Your task to perform on an android device: check data usage Image 0: 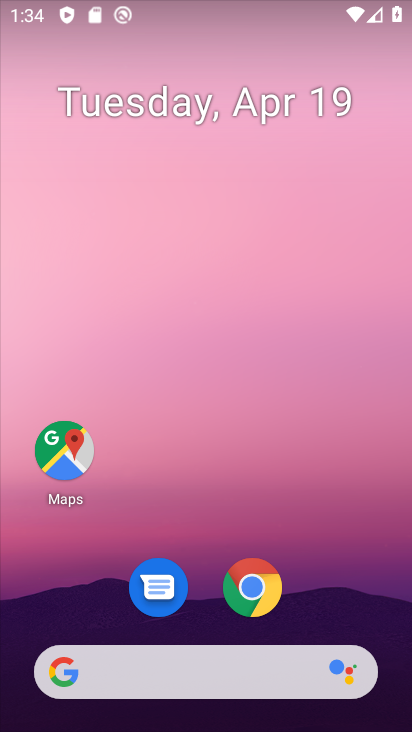
Step 0: drag from (268, 720) to (214, 219)
Your task to perform on an android device: check data usage Image 1: 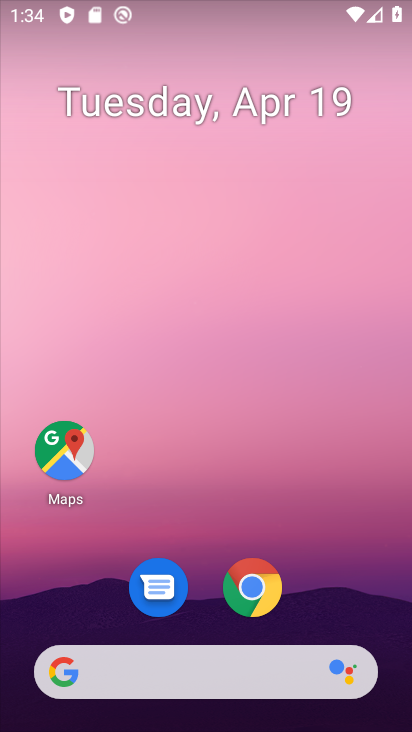
Step 1: drag from (284, 532) to (258, 139)
Your task to perform on an android device: check data usage Image 2: 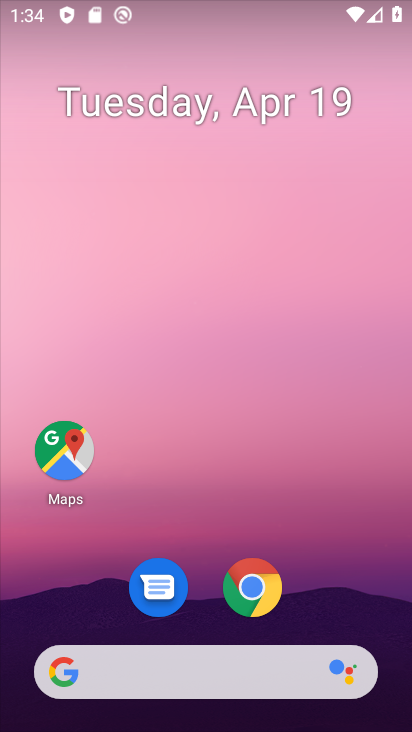
Step 2: drag from (125, 459) to (154, 297)
Your task to perform on an android device: check data usage Image 3: 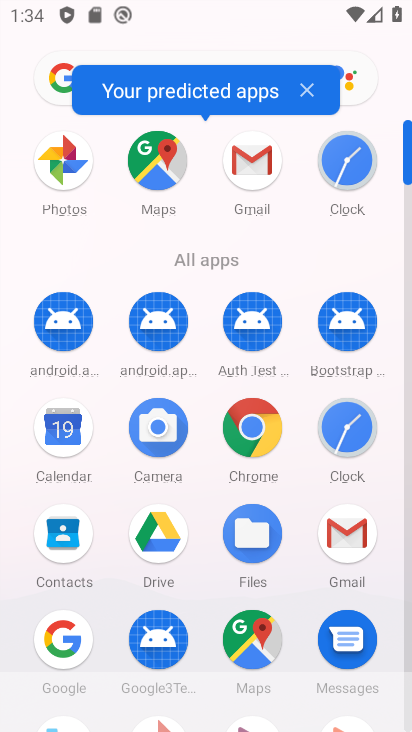
Step 3: click (401, 519)
Your task to perform on an android device: check data usage Image 4: 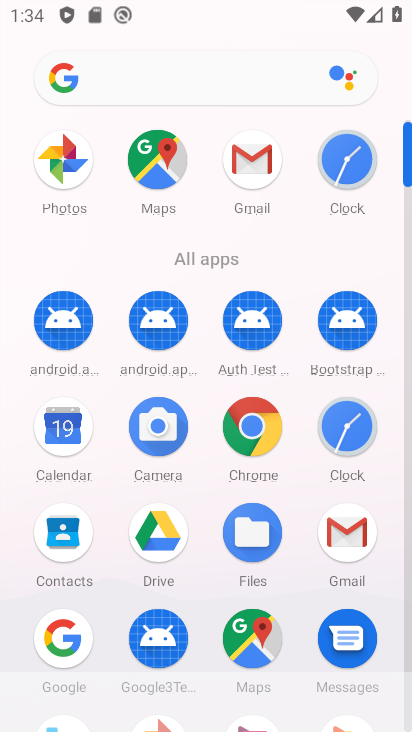
Step 4: click (283, 71)
Your task to perform on an android device: check data usage Image 5: 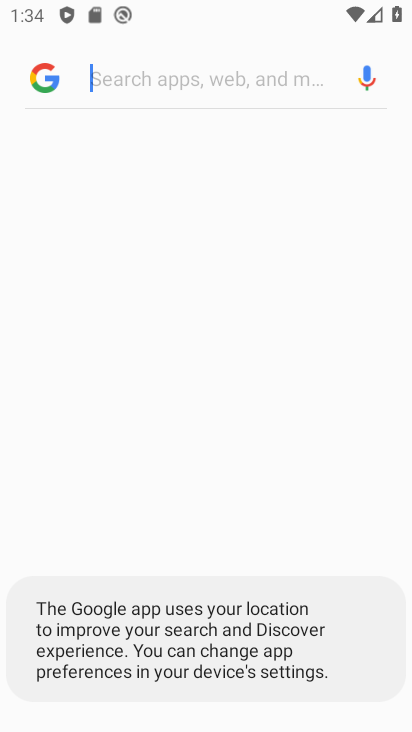
Step 5: drag from (331, 438) to (191, 46)
Your task to perform on an android device: check data usage Image 6: 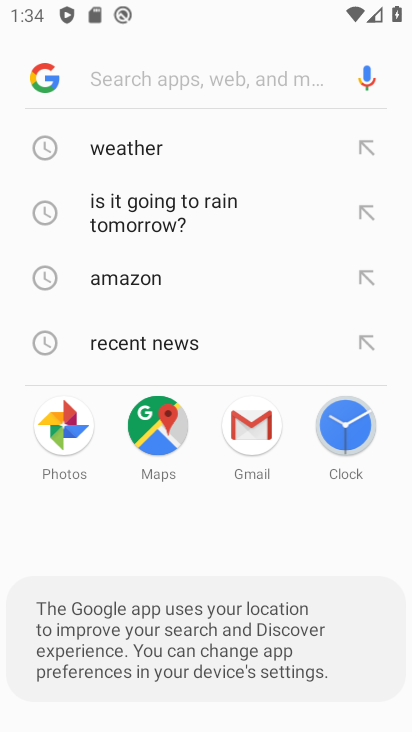
Step 6: press home button
Your task to perform on an android device: check data usage Image 7: 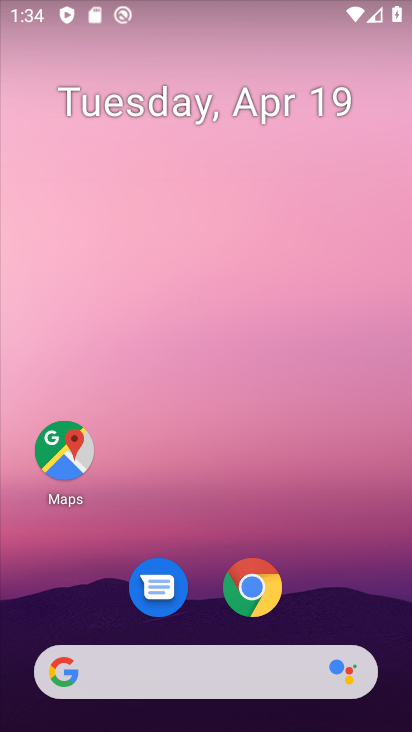
Step 7: drag from (287, 711) to (34, 201)
Your task to perform on an android device: check data usage Image 8: 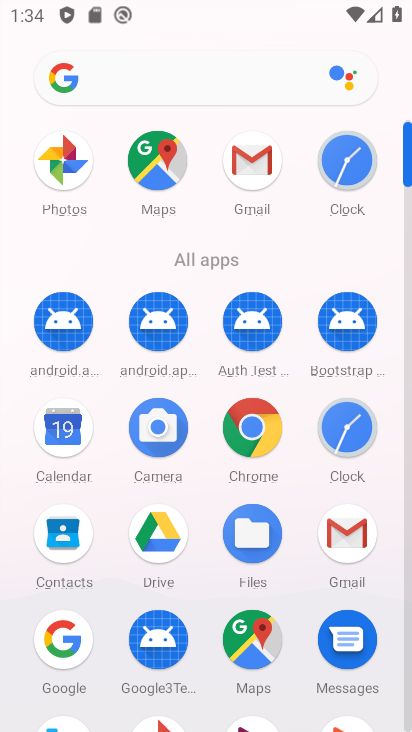
Step 8: drag from (375, 585) to (371, 343)
Your task to perform on an android device: check data usage Image 9: 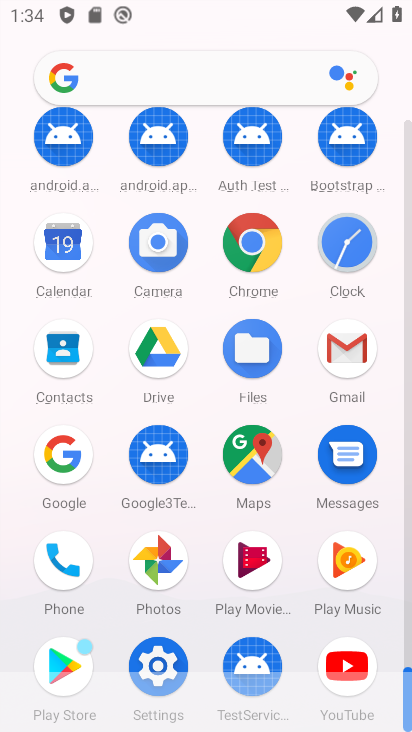
Step 9: click (147, 654)
Your task to perform on an android device: check data usage Image 10: 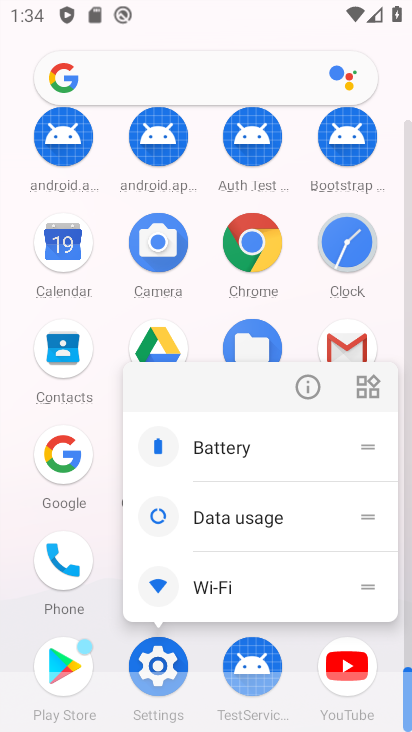
Step 10: click (147, 654)
Your task to perform on an android device: check data usage Image 11: 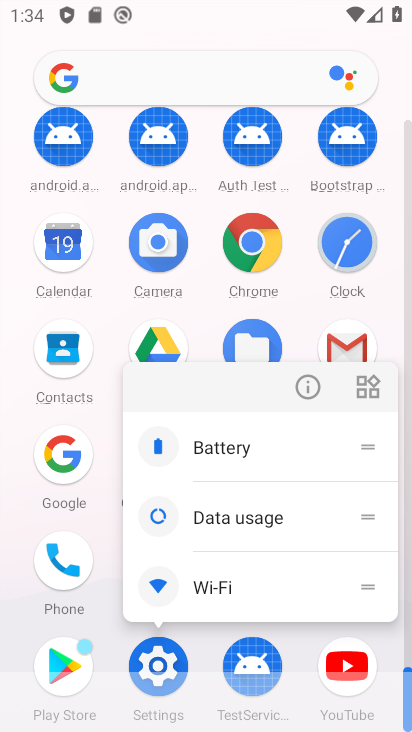
Step 11: click (149, 655)
Your task to perform on an android device: check data usage Image 12: 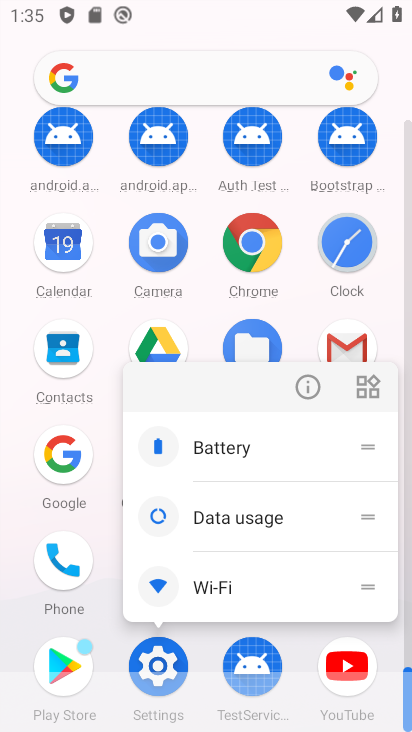
Step 12: click (161, 657)
Your task to perform on an android device: check data usage Image 13: 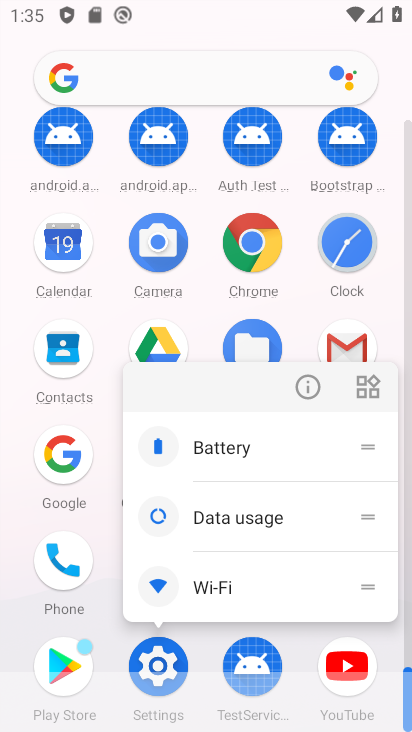
Step 13: click (162, 648)
Your task to perform on an android device: check data usage Image 14: 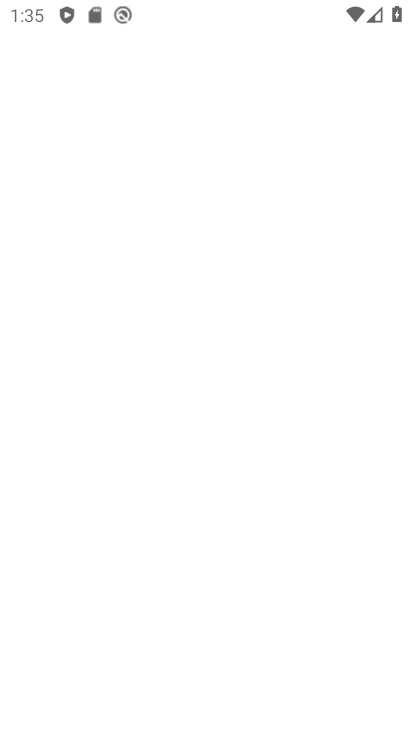
Step 14: click (157, 655)
Your task to perform on an android device: check data usage Image 15: 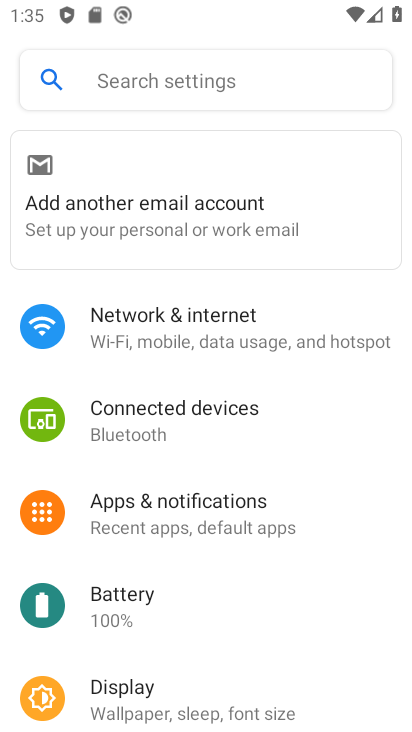
Step 15: click (192, 182)
Your task to perform on an android device: check data usage Image 16: 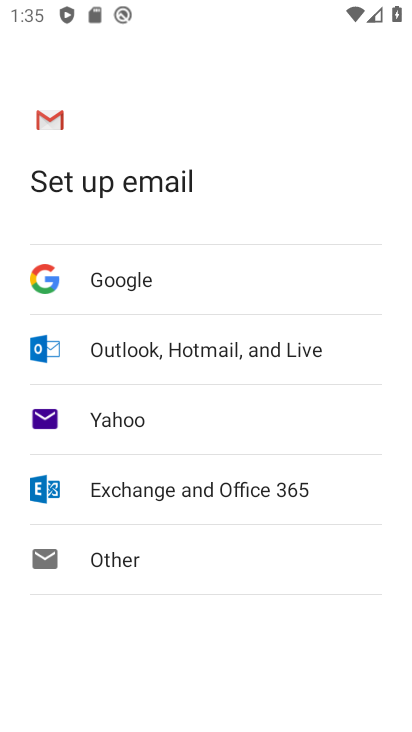
Step 16: press back button
Your task to perform on an android device: check data usage Image 17: 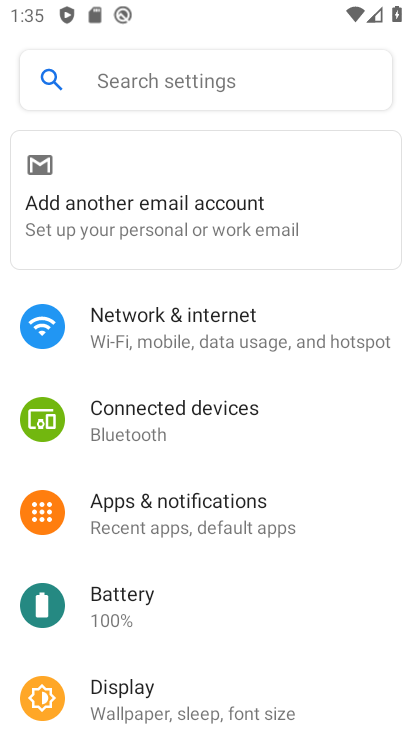
Step 17: click (176, 158)
Your task to perform on an android device: check data usage Image 18: 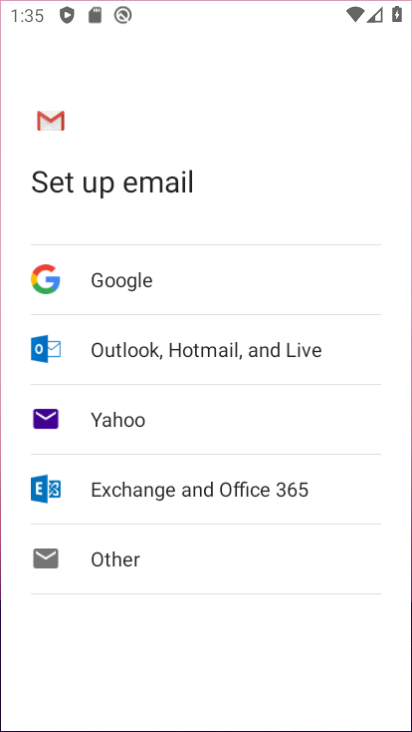
Step 18: click (201, 324)
Your task to perform on an android device: check data usage Image 19: 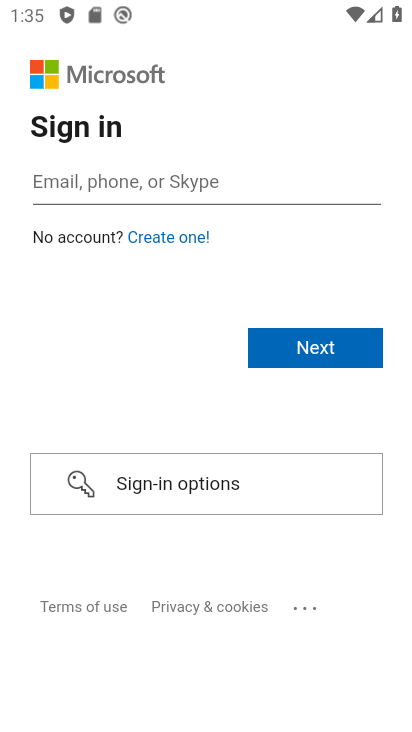
Step 19: press back button
Your task to perform on an android device: check data usage Image 20: 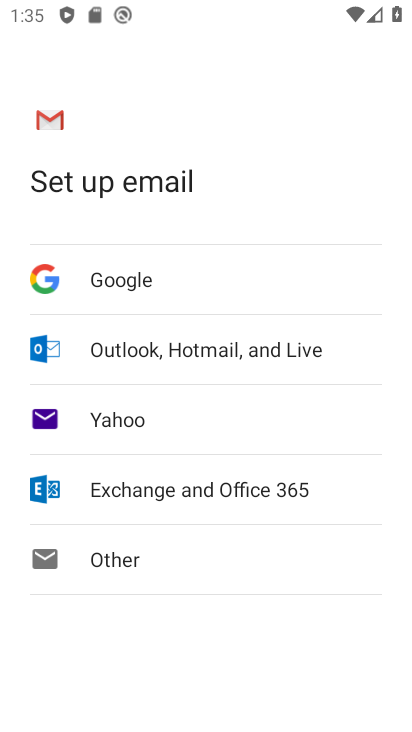
Step 20: press back button
Your task to perform on an android device: check data usage Image 21: 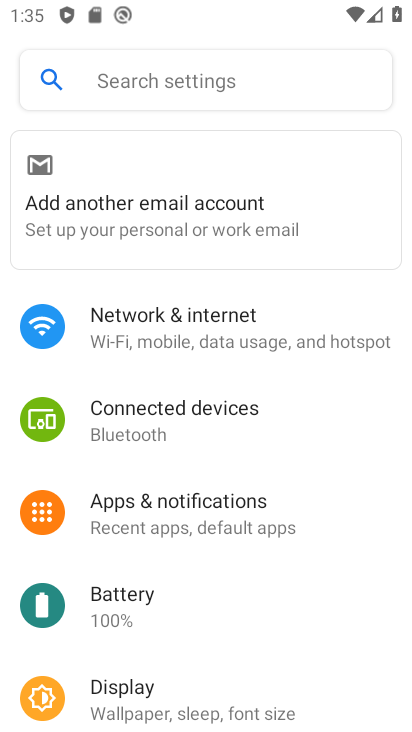
Step 21: click (247, 337)
Your task to perform on an android device: check data usage Image 22: 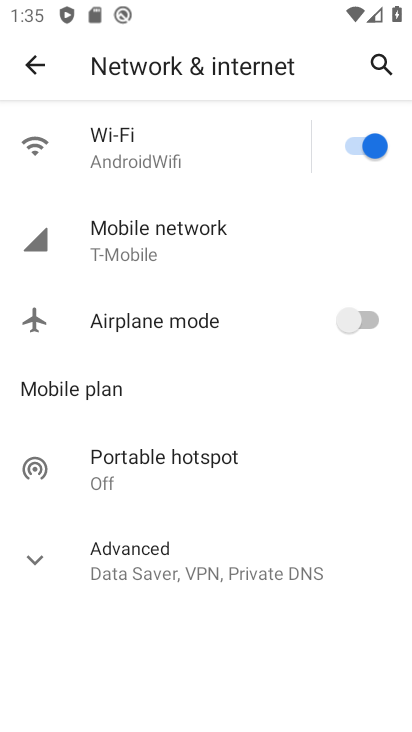
Step 22: task complete